Your task to perform on an android device: Open Youtube and go to "Your channel" Image 0: 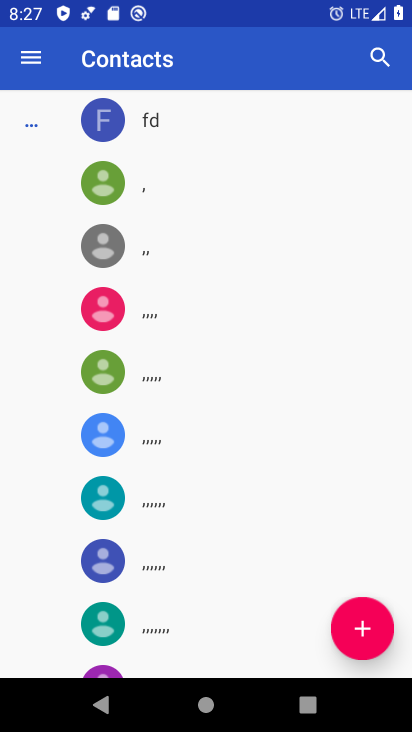
Step 0: press back button
Your task to perform on an android device: Open Youtube and go to "Your channel" Image 1: 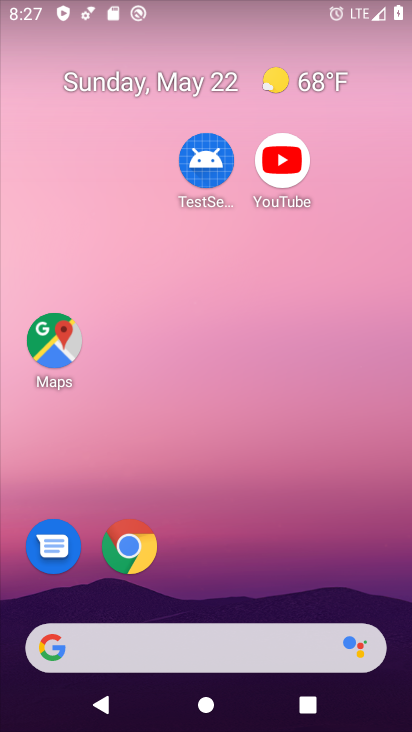
Step 1: drag from (277, 692) to (214, 2)
Your task to perform on an android device: Open Youtube and go to "Your channel" Image 2: 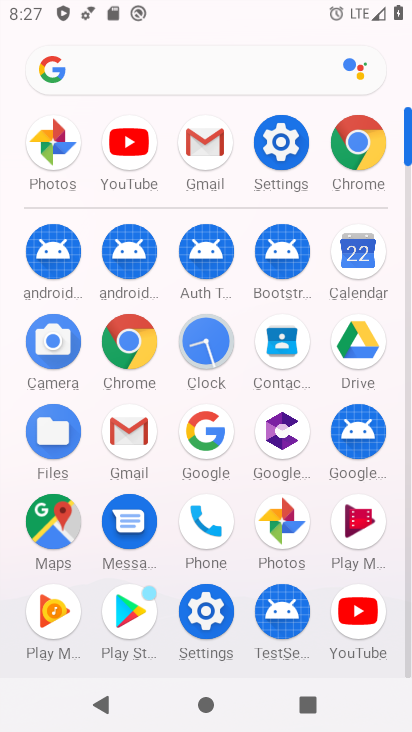
Step 2: click (343, 610)
Your task to perform on an android device: Open Youtube and go to "Your channel" Image 3: 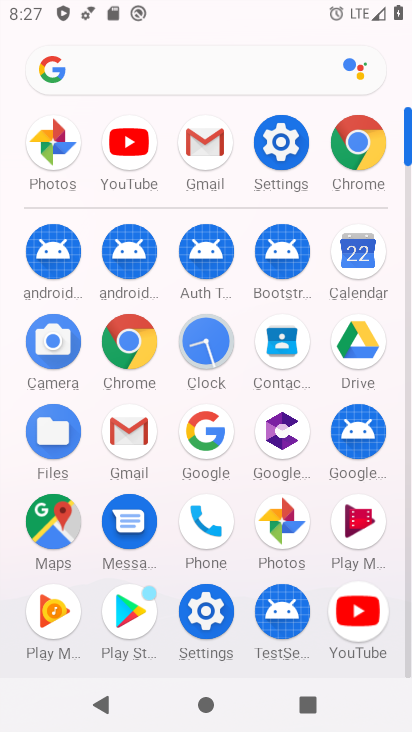
Step 3: click (349, 613)
Your task to perform on an android device: Open Youtube and go to "Your channel" Image 4: 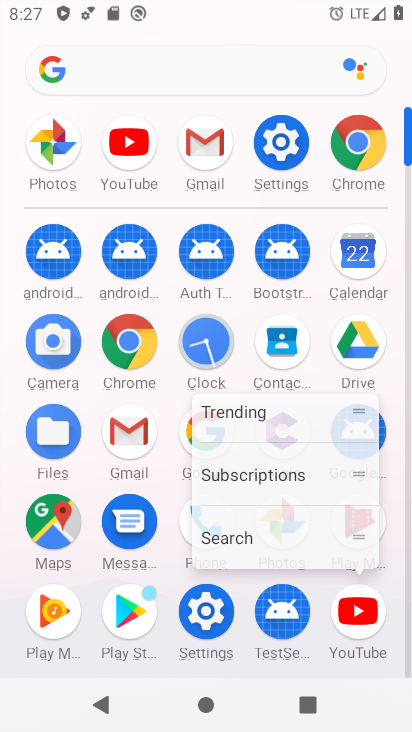
Step 4: click (362, 618)
Your task to perform on an android device: Open Youtube and go to "Your channel" Image 5: 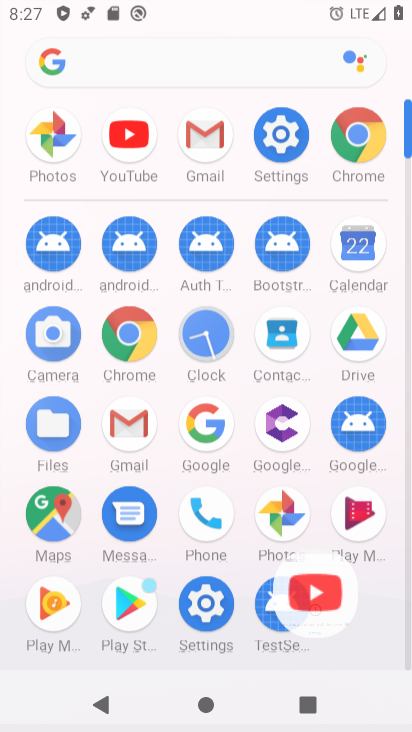
Step 5: click (367, 607)
Your task to perform on an android device: Open Youtube and go to "Your channel" Image 6: 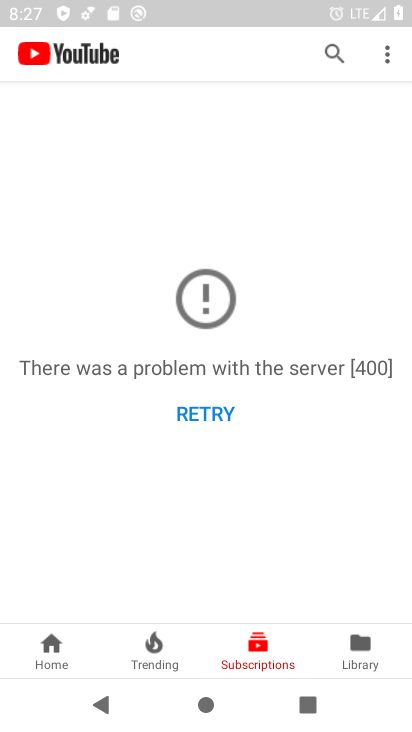
Step 6: click (375, 604)
Your task to perform on an android device: Open Youtube and go to "Your channel" Image 7: 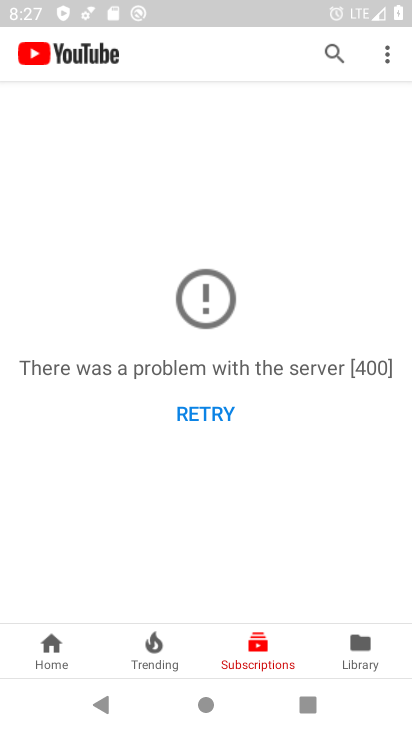
Step 7: task complete